Your task to perform on an android device: Open Youtube and go to the subscriptions tab Image 0: 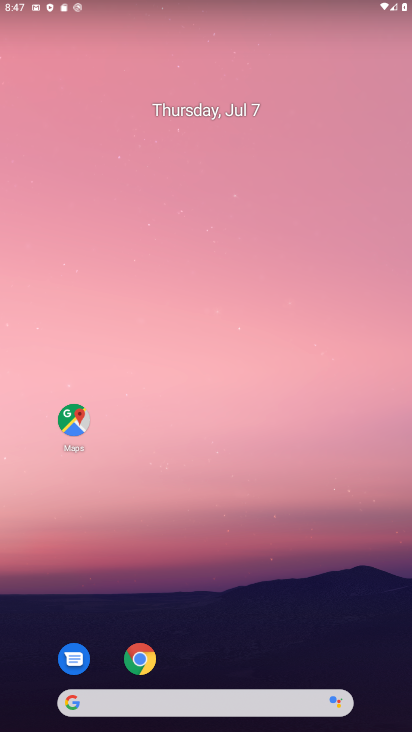
Step 0: drag from (218, 639) to (233, 17)
Your task to perform on an android device: Open Youtube and go to the subscriptions tab Image 1: 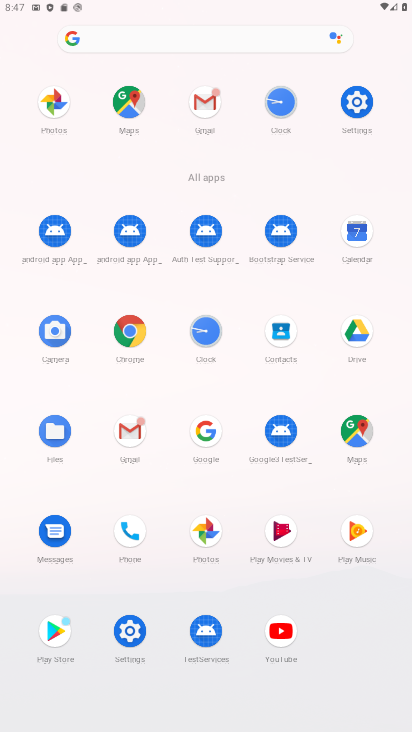
Step 1: click (275, 640)
Your task to perform on an android device: Open Youtube and go to the subscriptions tab Image 2: 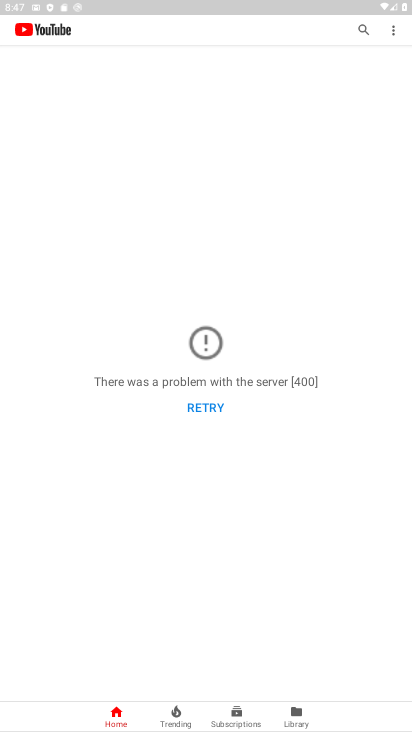
Step 2: click (201, 401)
Your task to perform on an android device: Open Youtube and go to the subscriptions tab Image 3: 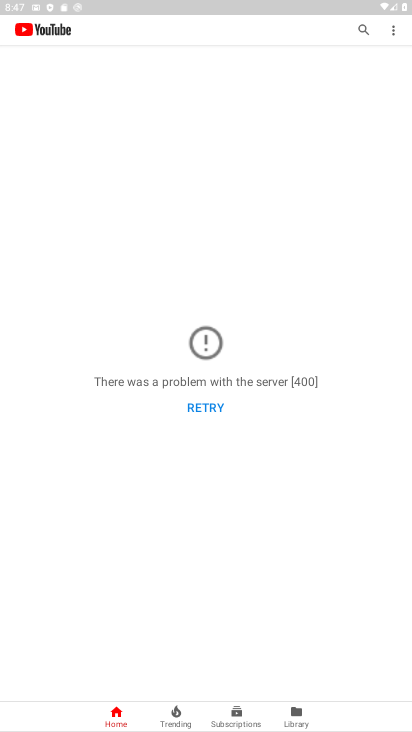
Step 3: click (203, 422)
Your task to perform on an android device: Open Youtube and go to the subscriptions tab Image 4: 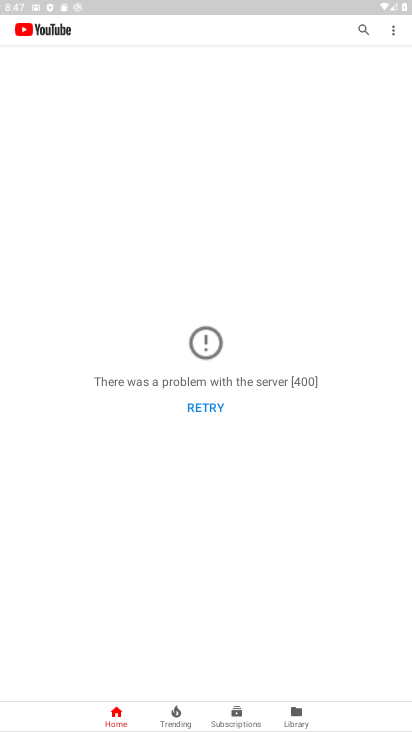
Step 4: click (203, 417)
Your task to perform on an android device: Open Youtube and go to the subscriptions tab Image 5: 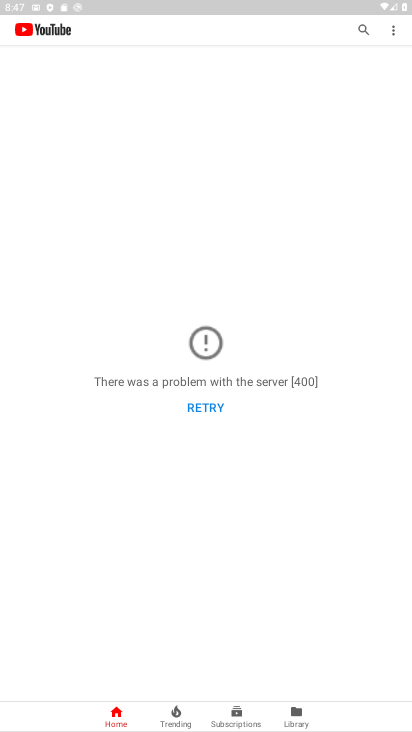
Step 5: task complete